Your task to perform on an android device: change the clock display to analog Image 0: 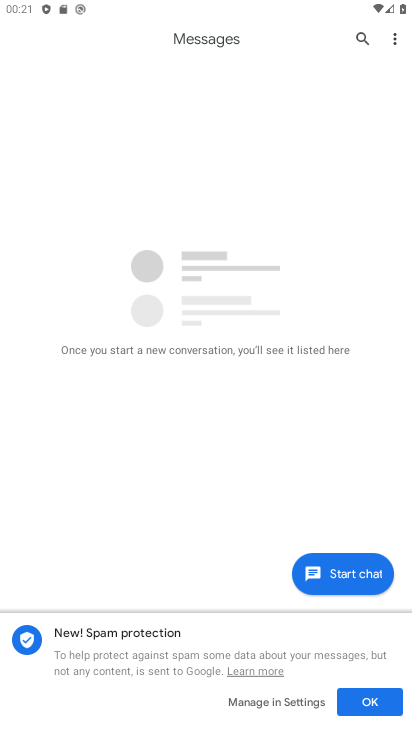
Step 0: press home button
Your task to perform on an android device: change the clock display to analog Image 1: 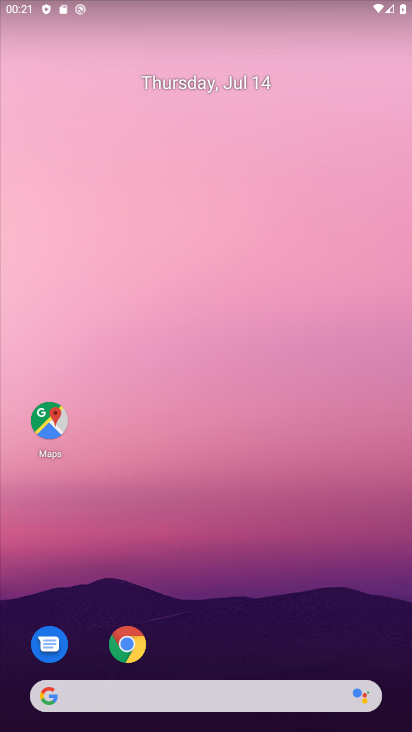
Step 1: drag from (261, 722) to (201, 241)
Your task to perform on an android device: change the clock display to analog Image 2: 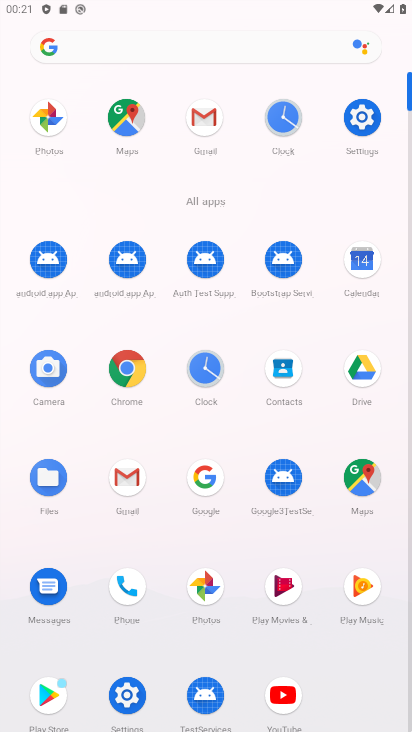
Step 2: click (211, 355)
Your task to perform on an android device: change the clock display to analog Image 3: 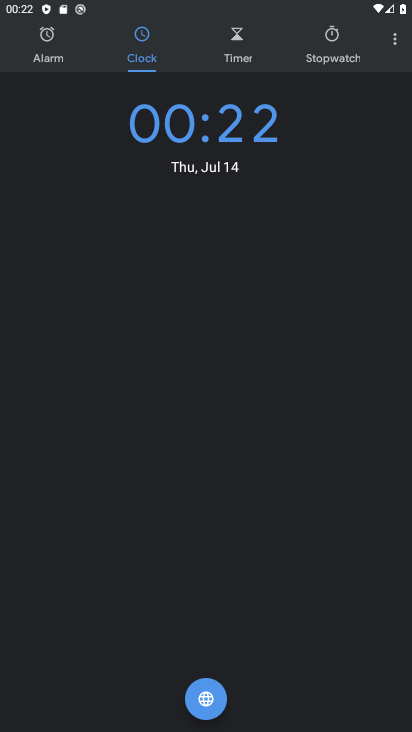
Step 3: click (394, 39)
Your task to perform on an android device: change the clock display to analog Image 4: 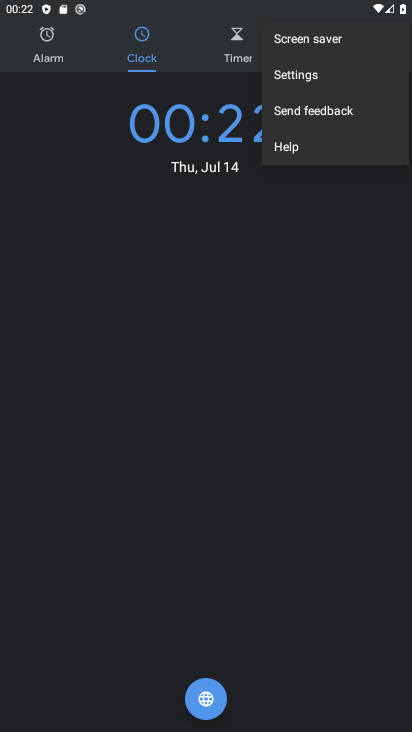
Step 4: click (306, 80)
Your task to perform on an android device: change the clock display to analog Image 5: 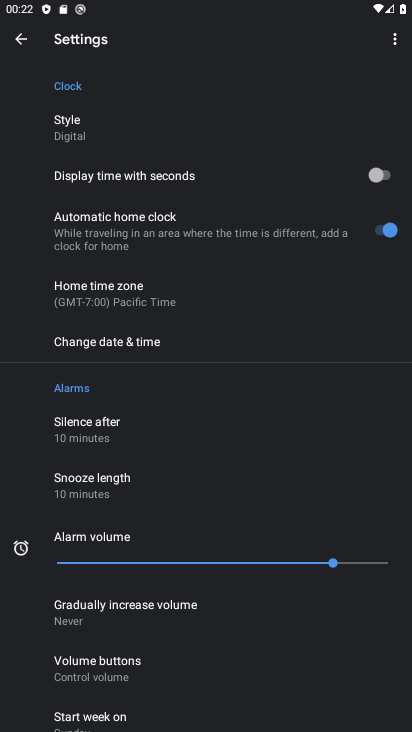
Step 5: click (78, 123)
Your task to perform on an android device: change the clock display to analog Image 6: 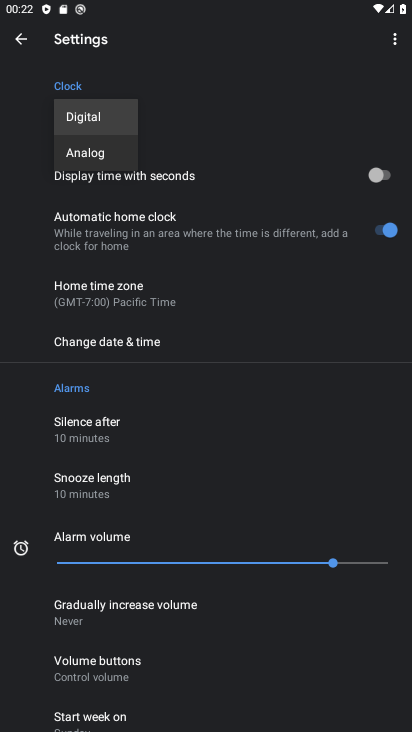
Step 6: click (82, 158)
Your task to perform on an android device: change the clock display to analog Image 7: 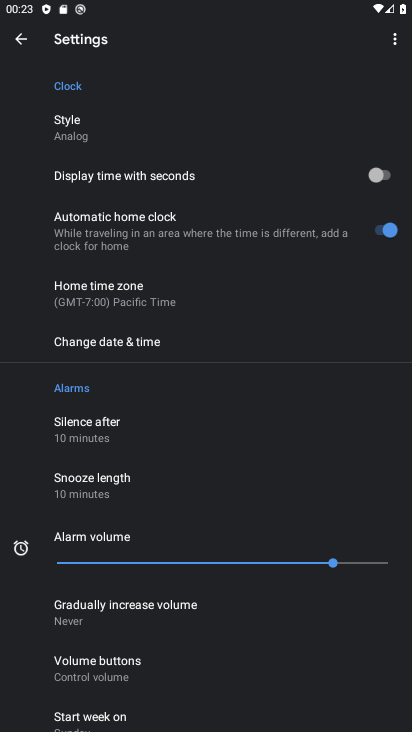
Step 7: task complete